Your task to perform on an android device: Go to Android settings Image 0: 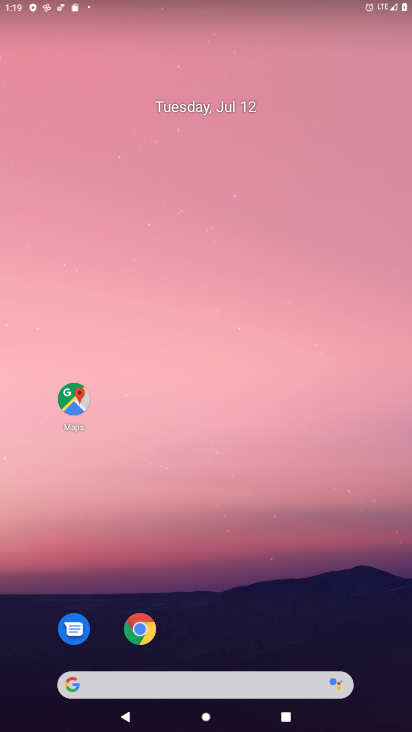
Step 0: drag from (298, 693) to (241, 64)
Your task to perform on an android device: Go to Android settings Image 1: 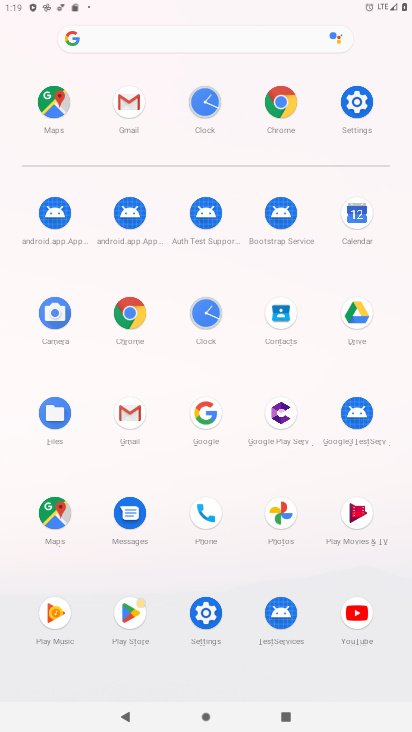
Step 1: click (358, 87)
Your task to perform on an android device: Go to Android settings Image 2: 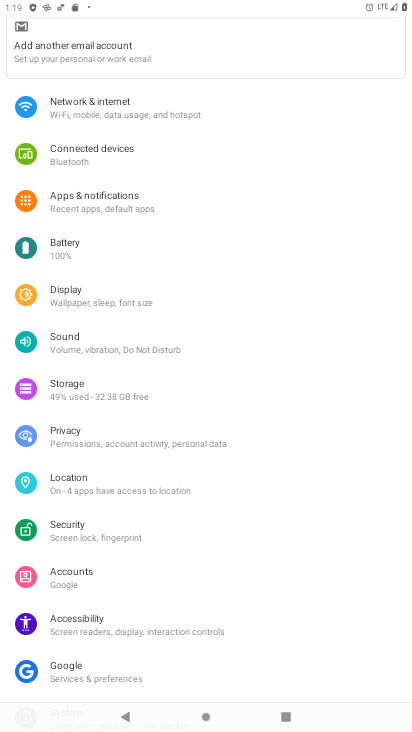
Step 2: drag from (118, 685) to (152, 405)
Your task to perform on an android device: Go to Android settings Image 3: 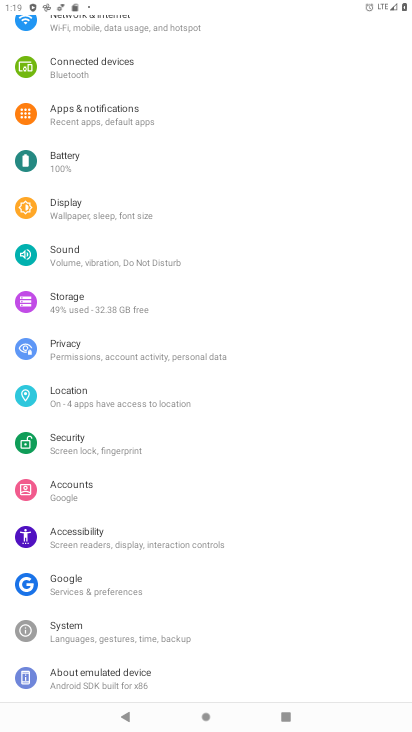
Step 3: click (121, 675)
Your task to perform on an android device: Go to Android settings Image 4: 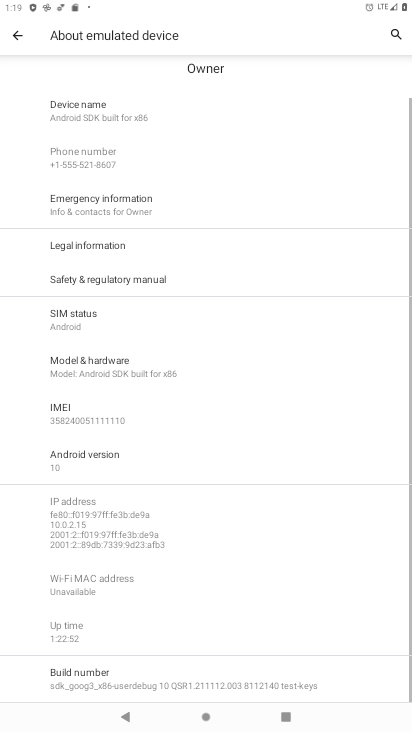
Step 4: task complete